Your task to perform on an android device: turn on location history Image 0: 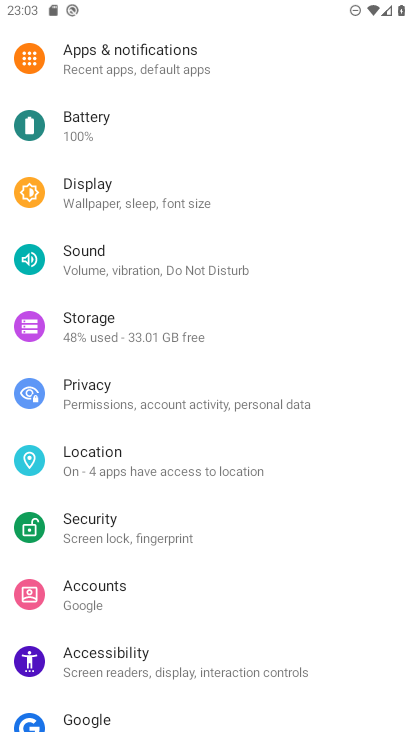
Step 0: click (177, 463)
Your task to perform on an android device: turn on location history Image 1: 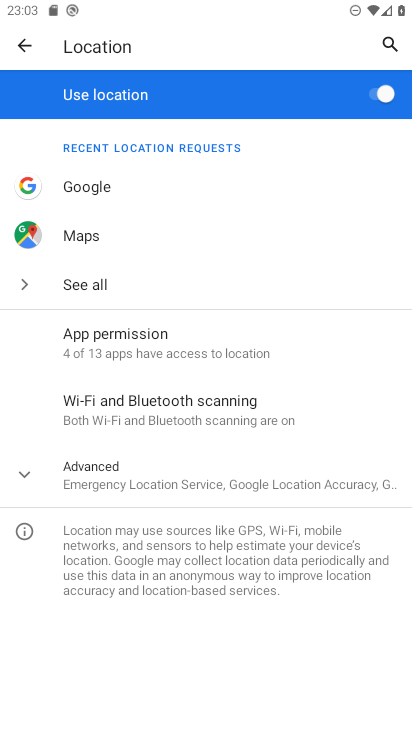
Step 1: click (22, 464)
Your task to perform on an android device: turn on location history Image 2: 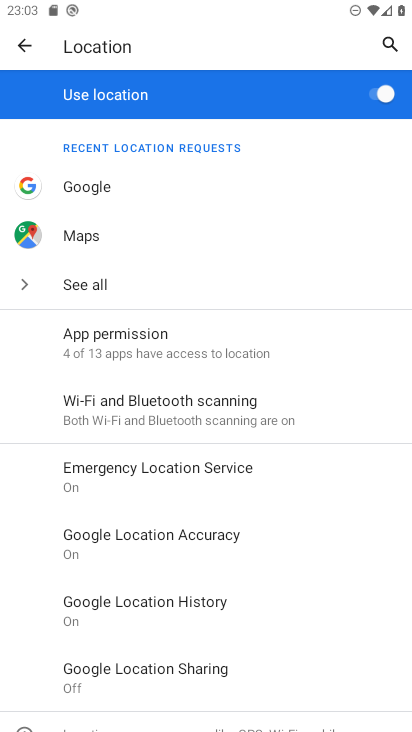
Step 2: task complete